Your task to perform on an android device: Open Chrome and go to settings Image 0: 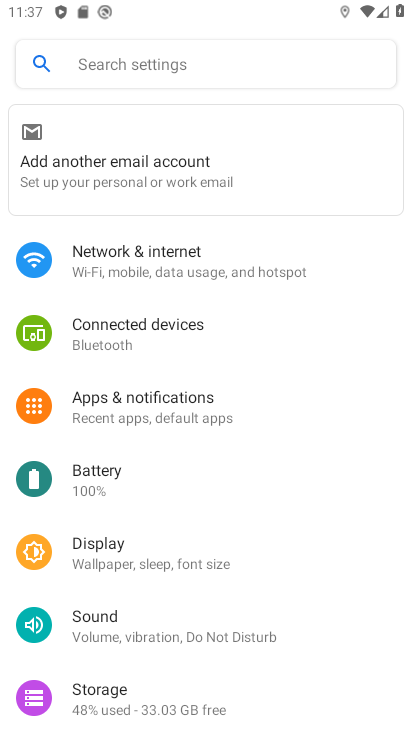
Step 0: press home button
Your task to perform on an android device: Open Chrome and go to settings Image 1: 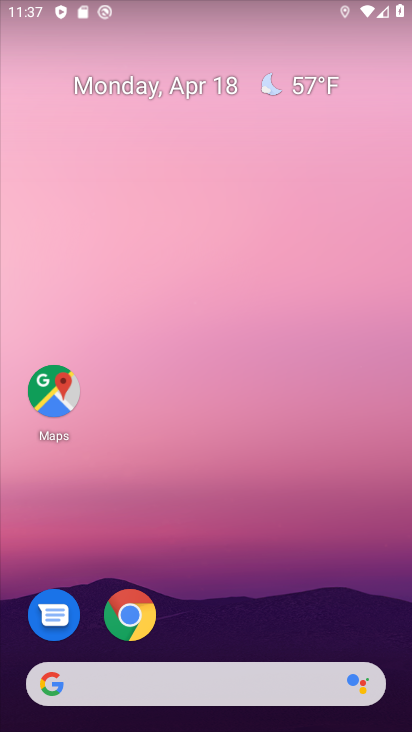
Step 1: click (144, 607)
Your task to perform on an android device: Open Chrome and go to settings Image 2: 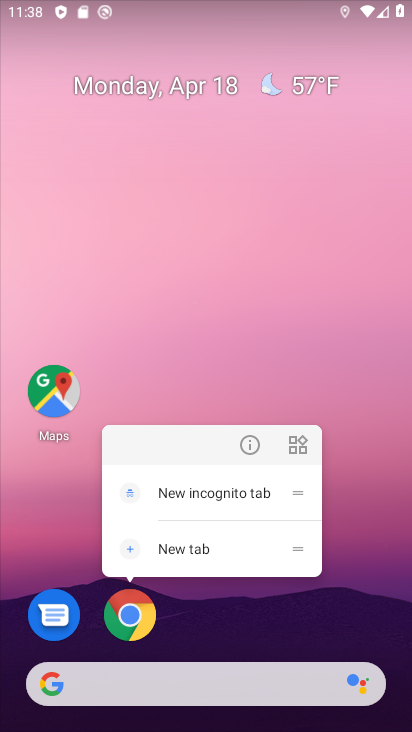
Step 2: click (129, 628)
Your task to perform on an android device: Open Chrome and go to settings Image 3: 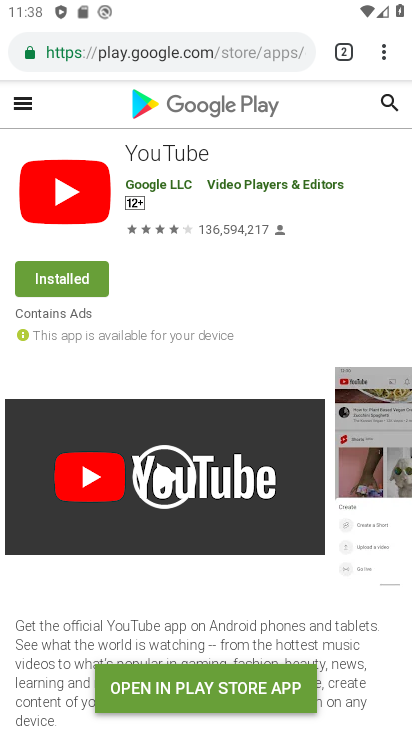
Step 3: click (381, 55)
Your task to perform on an android device: Open Chrome and go to settings Image 4: 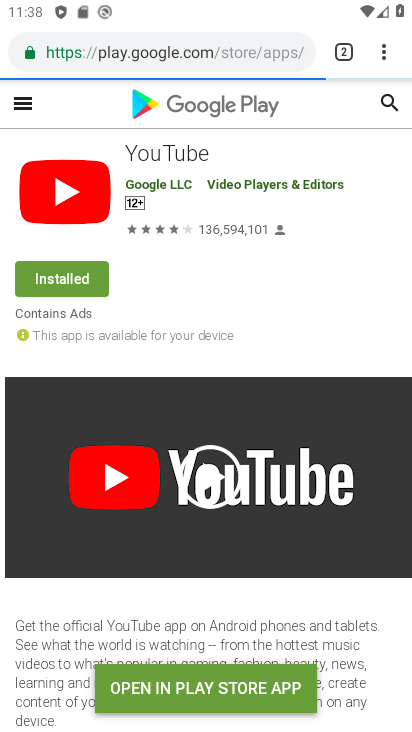
Step 4: task complete